Your task to perform on an android device: turn off data saver in the chrome app Image 0: 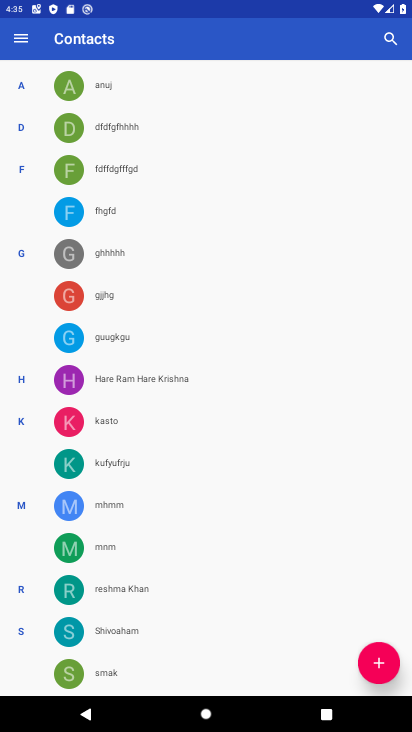
Step 0: press home button
Your task to perform on an android device: turn off data saver in the chrome app Image 1: 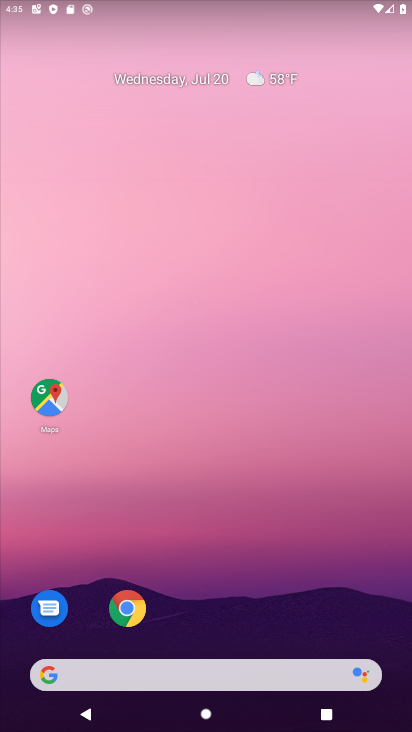
Step 1: click (136, 619)
Your task to perform on an android device: turn off data saver in the chrome app Image 2: 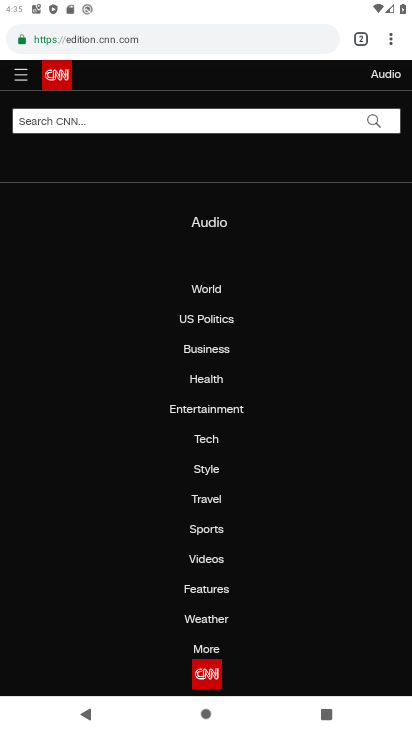
Step 2: click (384, 45)
Your task to perform on an android device: turn off data saver in the chrome app Image 3: 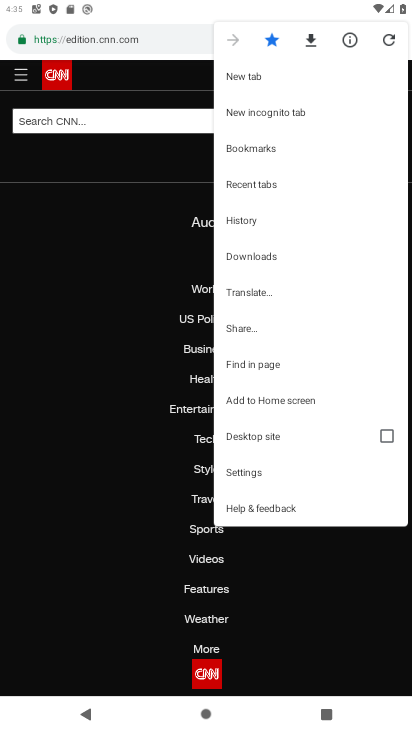
Step 3: click (237, 473)
Your task to perform on an android device: turn off data saver in the chrome app Image 4: 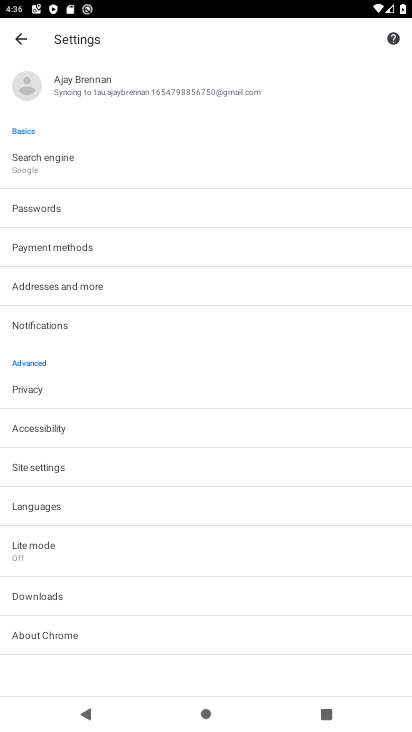
Step 4: click (26, 537)
Your task to perform on an android device: turn off data saver in the chrome app Image 5: 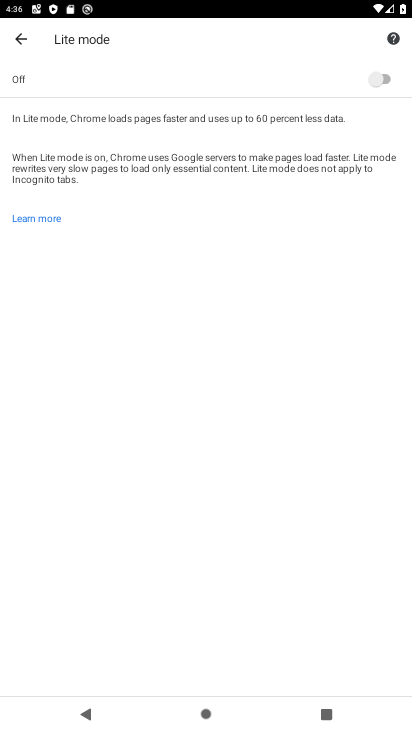
Step 5: task complete